Your task to perform on an android device: show emergency info Image 0: 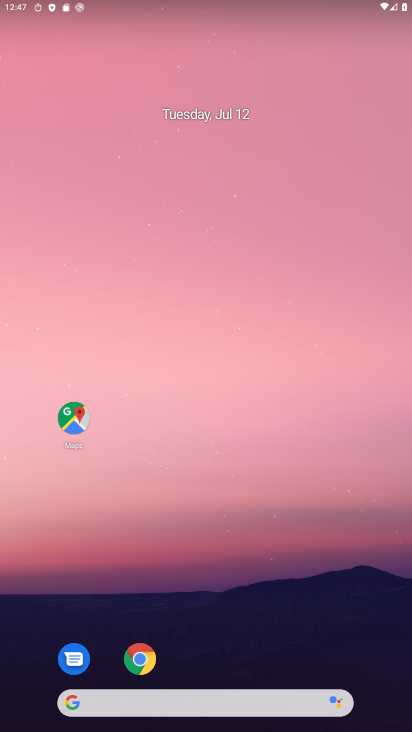
Step 0: drag from (258, 563) to (214, 25)
Your task to perform on an android device: show emergency info Image 1: 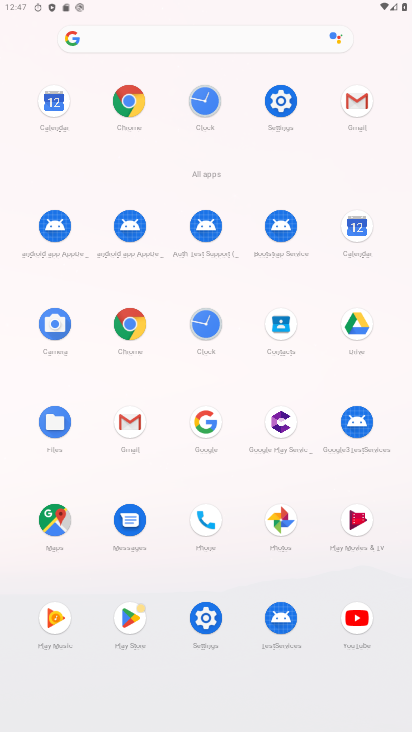
Step 1: click (285, 100)
Your task to perform on an android device: show emergency info Image 2: 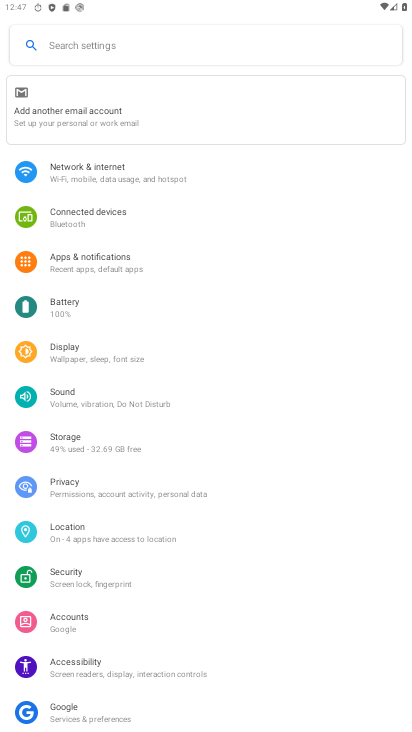
Step 2: drag from (214, 622) to (217, 135)
Your task to perform on an android device: show emergency info Image 3: 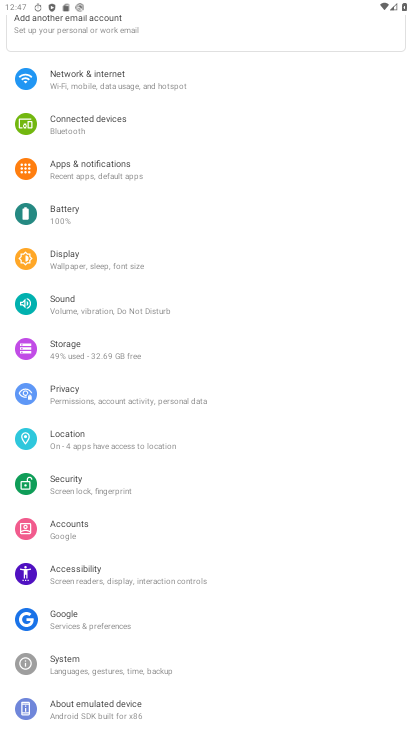
Step 3: click (83, 708)
Your task to perform on an android device: show emergency info Image 4: 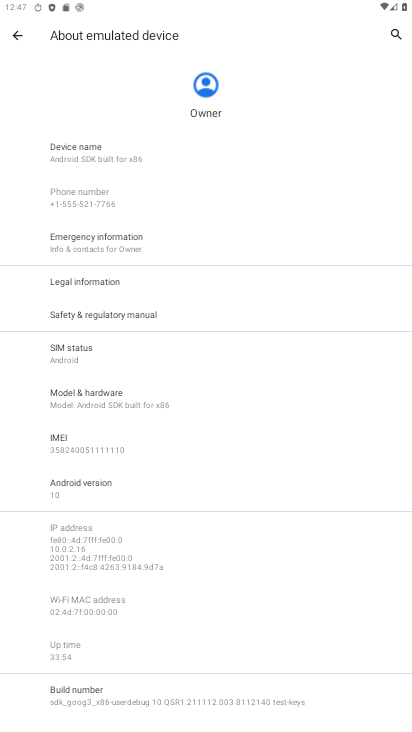
Step 4: click (122, 241)
Your task to perform on an android device: show emergency info Image 5: 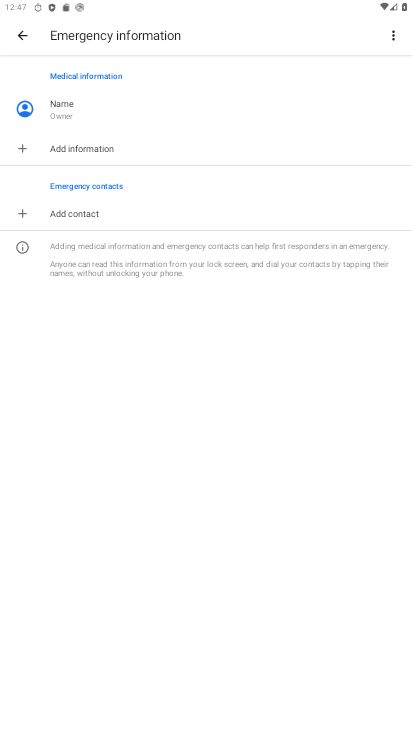
Step 5: task complete